Your task to perform on an android device: Open Yahoo.com Image 0: 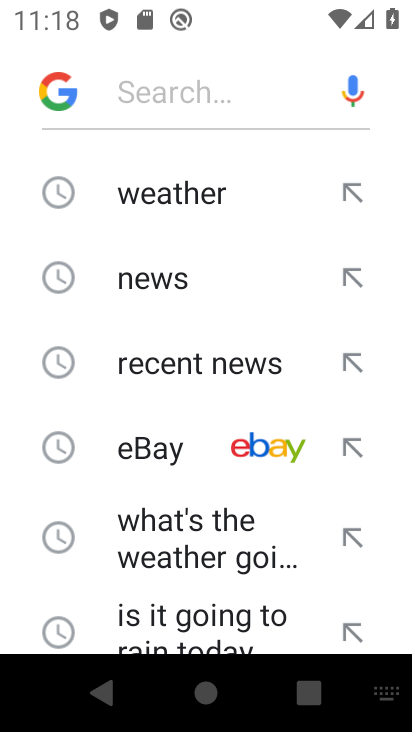
Step 0: press home button
Your task to perform on an android device: Open Yahoo.com Image 1: 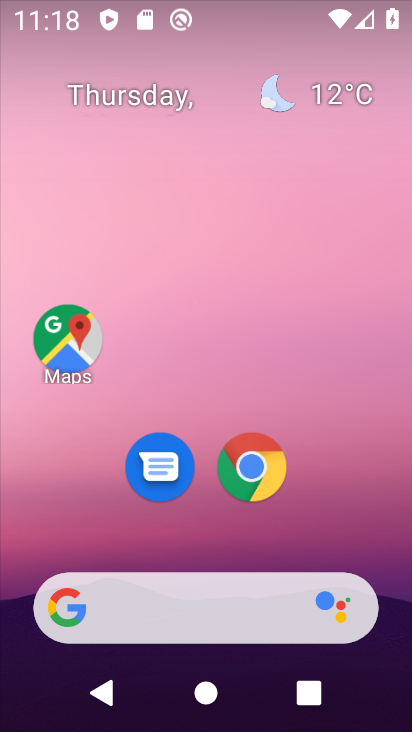
Step 1: click (227, 460)
Your task to perform on an android device: Open Yahoo.com Image 2: 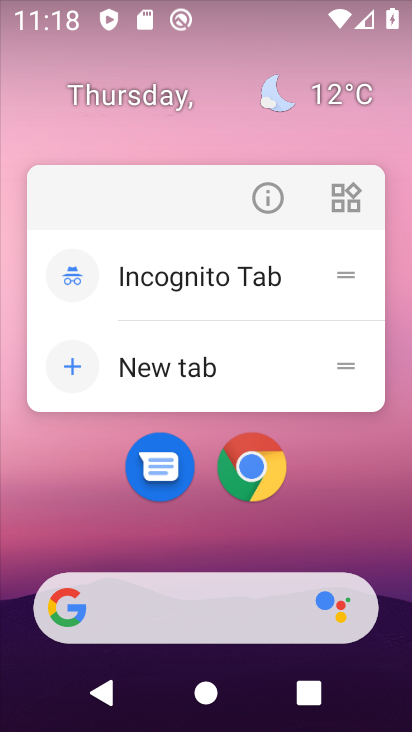
Step 2: click (251, 480)
Your task to perform on an android device: Open Yahoo.com Image 3: 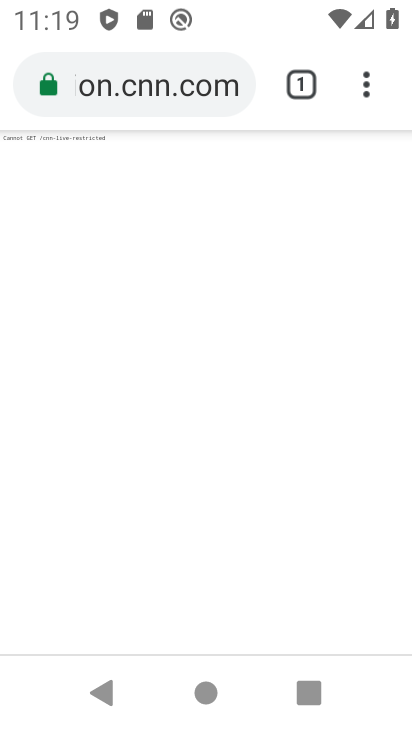
Step 3: click (199, 96)
Your task to perform on an android device: Open Yahoo.com Image 4: 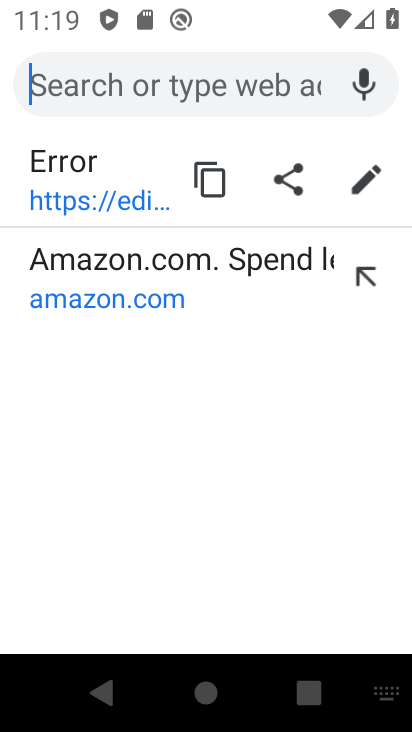
Step 4: type "yahoo"
Your task to perform on an android device: Open Yahoo.com Image 5: 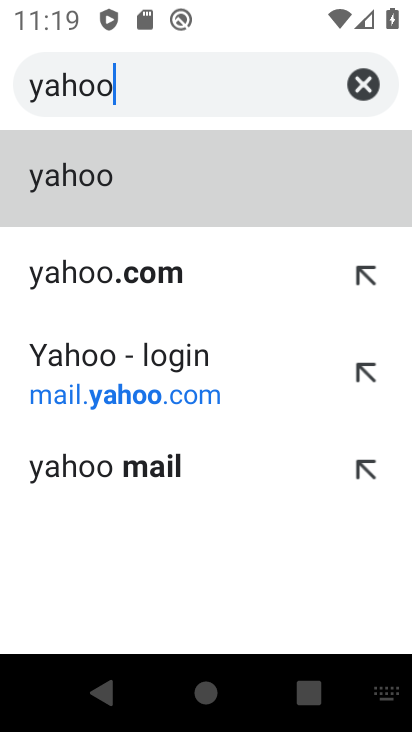
Step 5: click (147, 286)
Your task to perform on an android device: Open Yahoo.com Image 6: 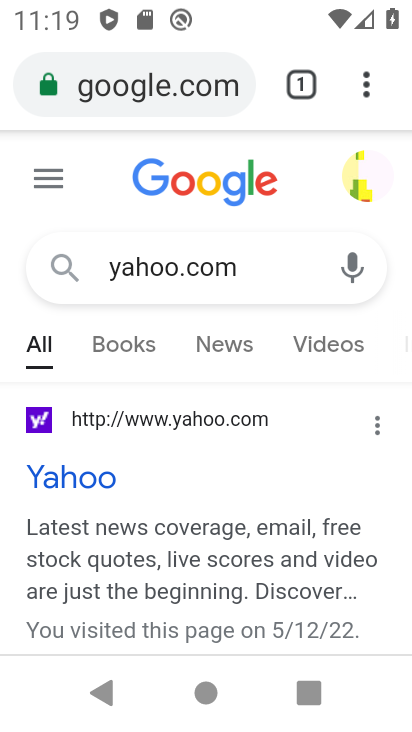
Step 6: click (49, 485)
Your task to perform on an android device: Open Yahoo.com Image 7: 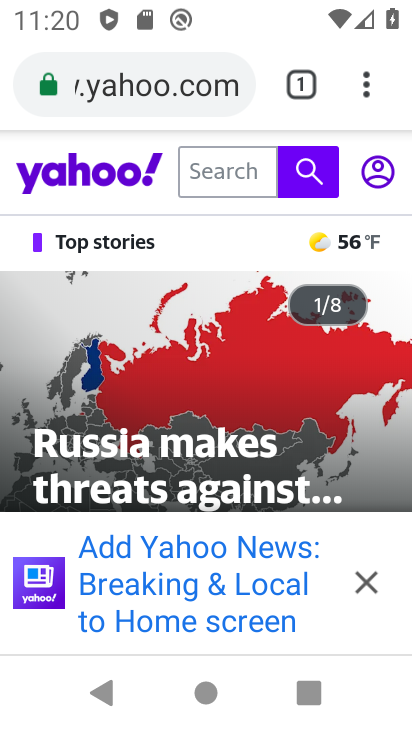
Step 7: task complete